Your task to perform on an android device: Search for sushi restaurants on Maps Image 0: 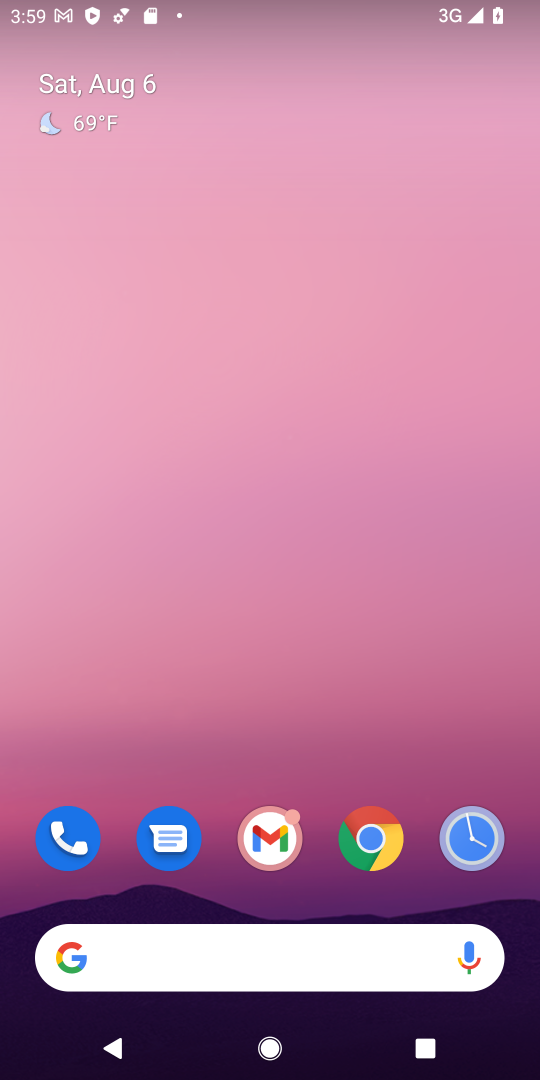
Step 0: drag from (63, 602) to (199, 221)
Your task to perform on an android device: Search for sushi restaurants on Maps Image 1: 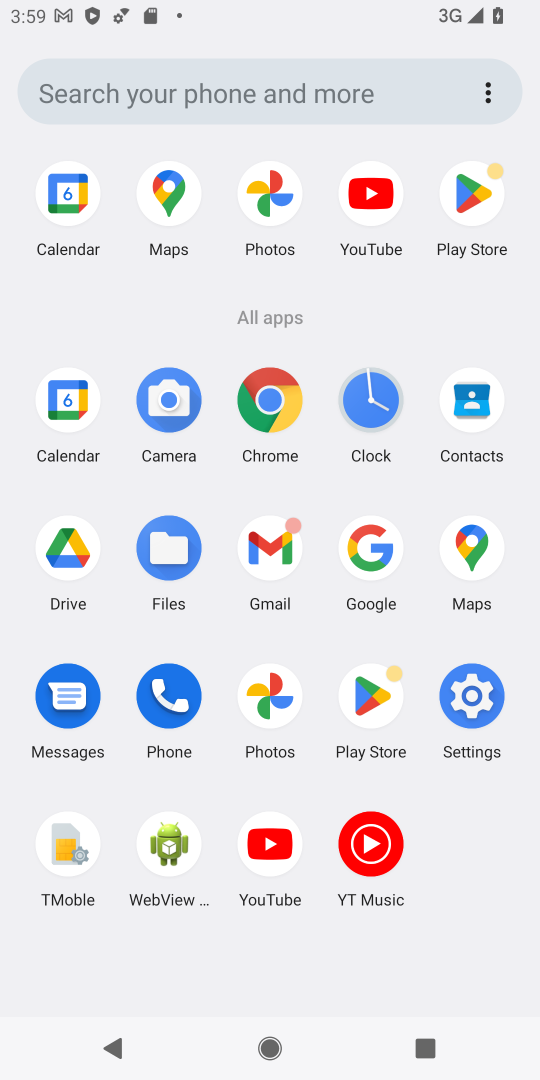
Step 1: click (153, 197)
Your task to perform on an android device: Search for sushi restaurants on Maps Image 2: 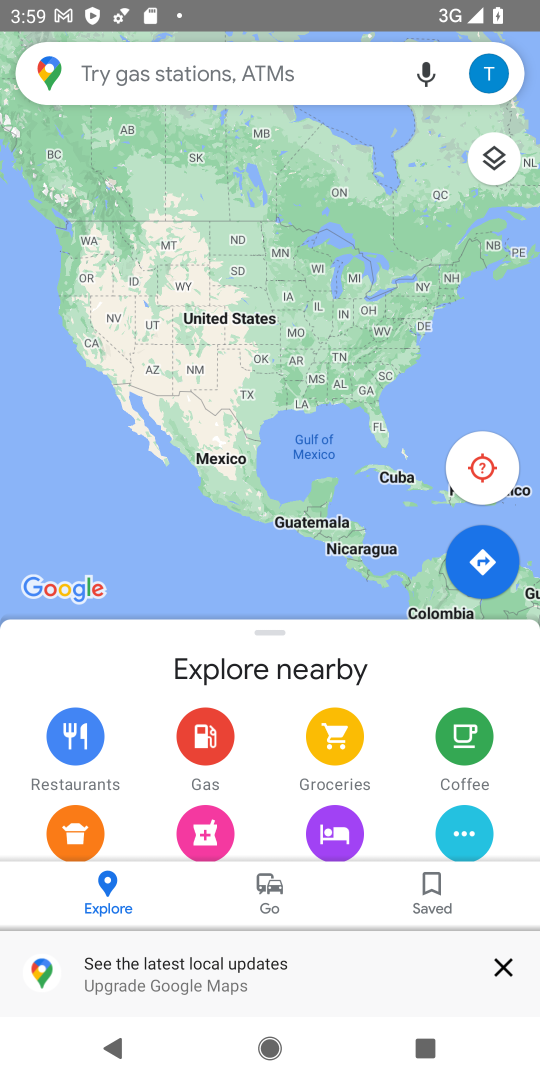
Step 2: click (99, 70)
Your task to perform on an android device: Search for sushi restaurants on Maps Image 3: 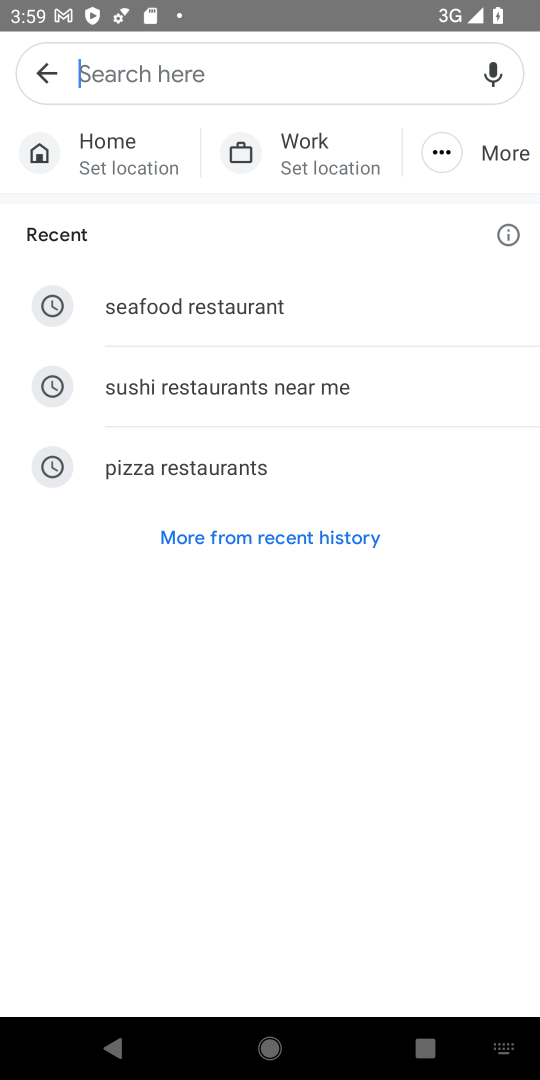
Step 3: click (137, 66)
Your task to perform on an android device: Search for sushi restaurants on Maps Image 4: 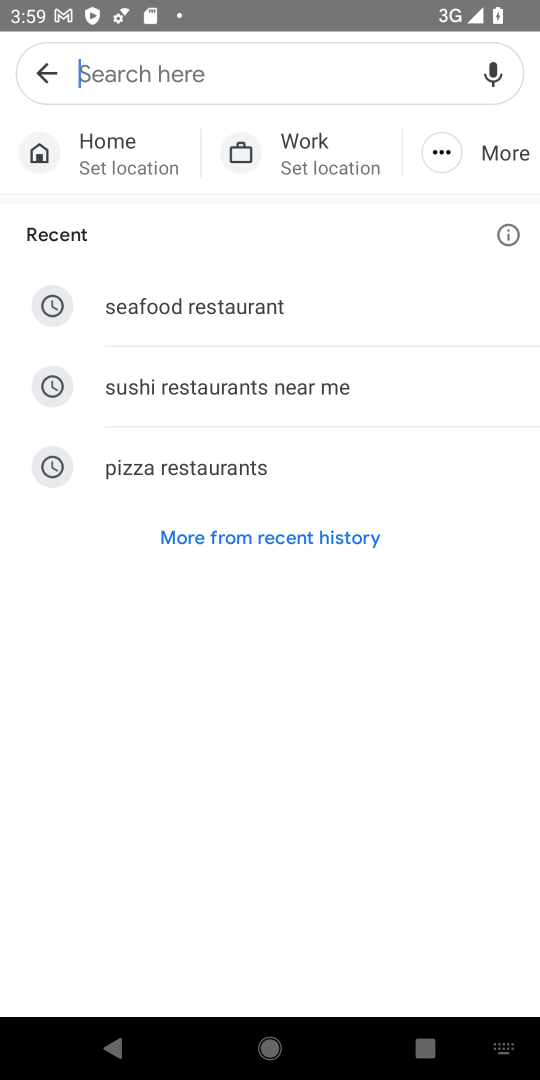
Step 4: type " sushi restaurants"
Your task to perform on an android device: Search for sushi restaurants on Maps Image 5: 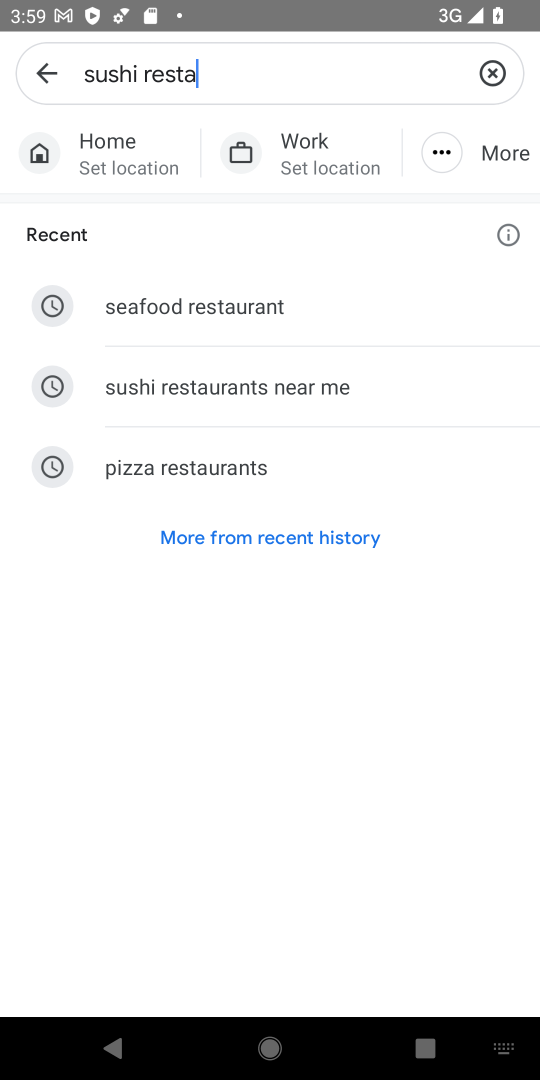
Step 5: type ""
Your task to perform on an android device: Search for sushi restaurants on Maps Image 6: 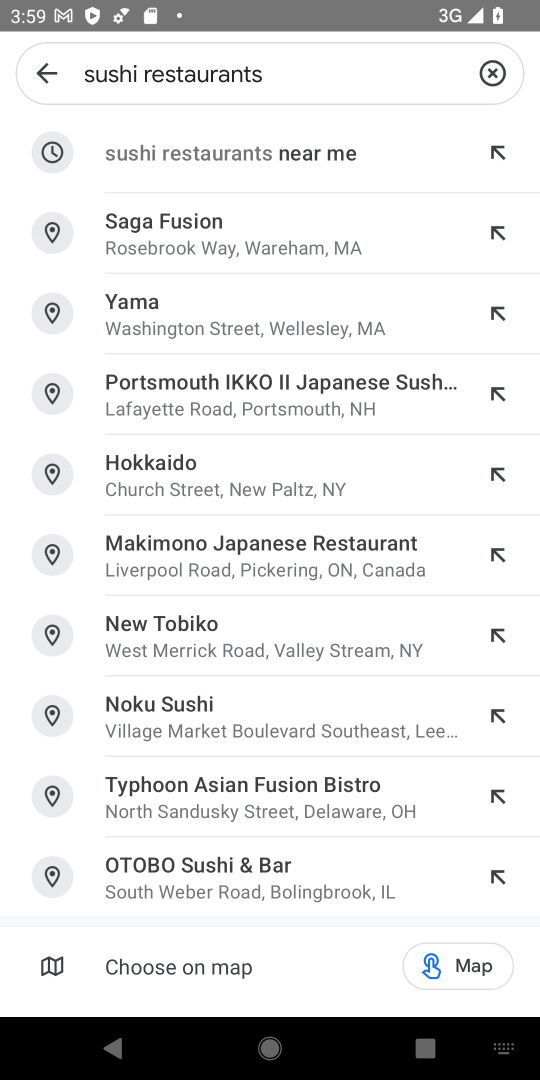
Step 6: click (185, 144)
Your task to perform on an android device: Search for sushi restaurants on Maps Image 7: 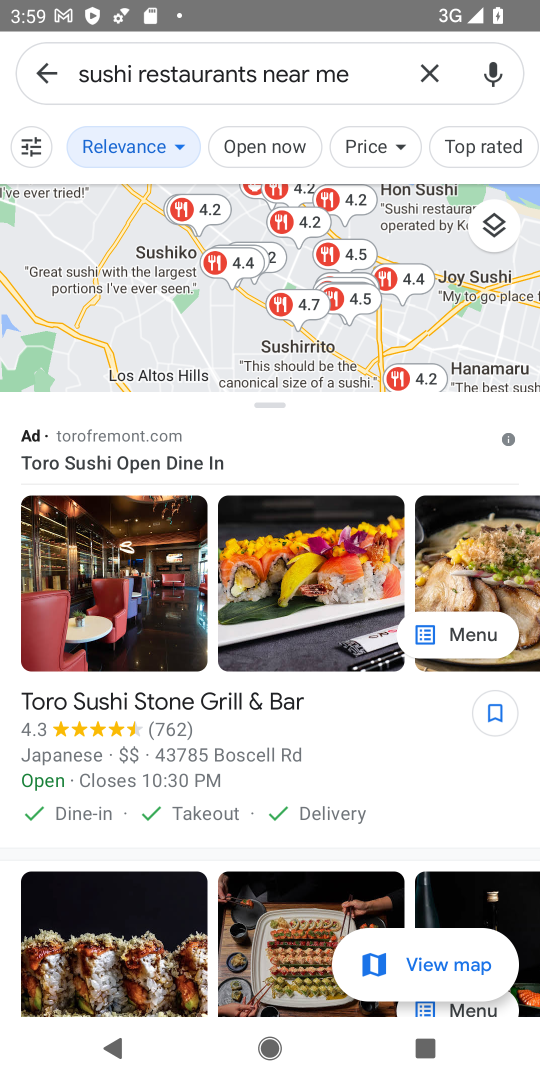
Step 7: task complete